Your task to perform on an android device: see creations saved in the google photos Image 0: 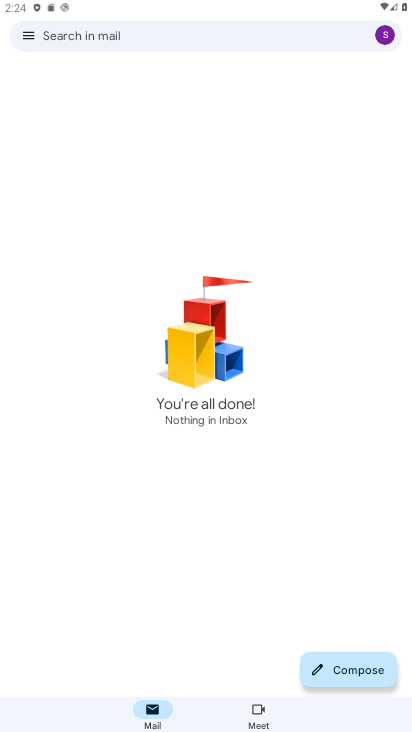
Step 0: task complete